Your task to perform on an android device: add a label to a message in the gmail app Image 0: 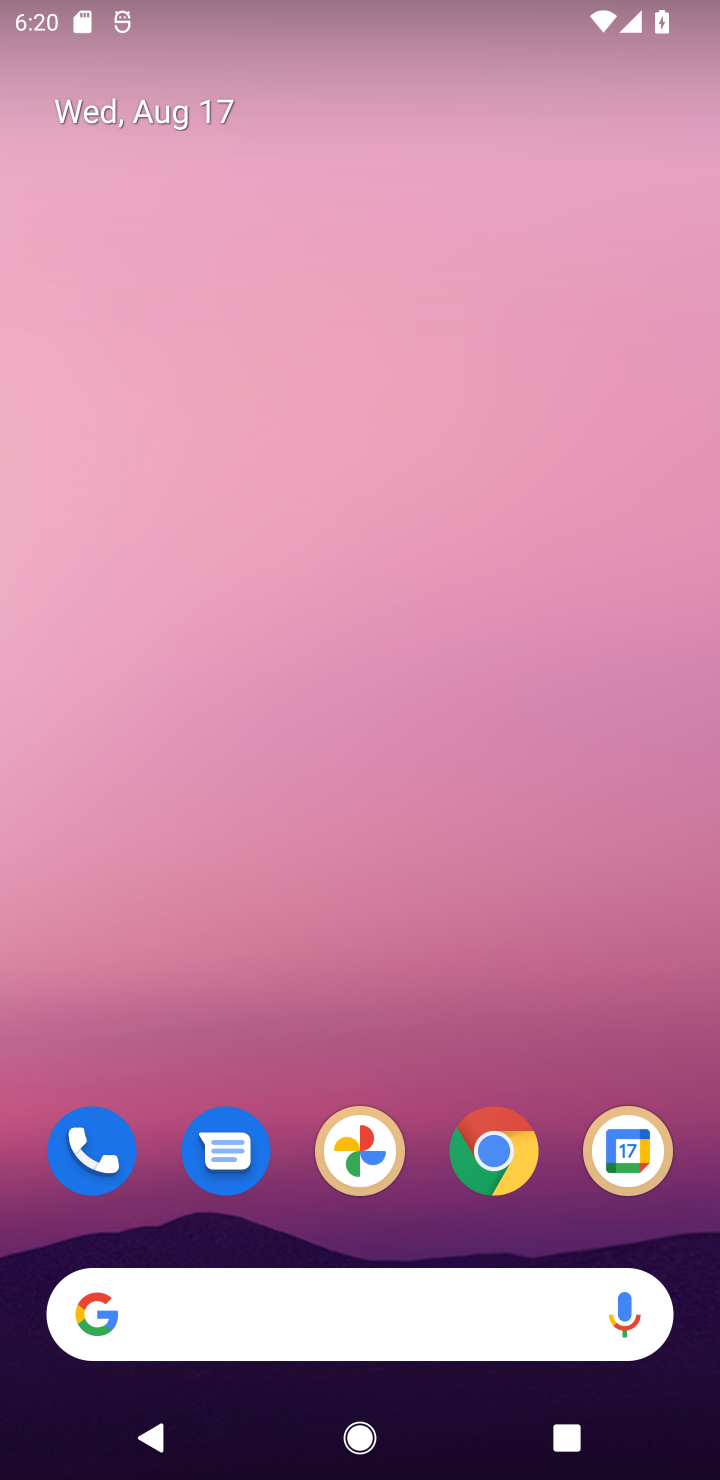
Step 0: drag from (452, 1227) to (360, 300)
Your task to perform on an android device: add a label to a message in the gmail app Image 1: 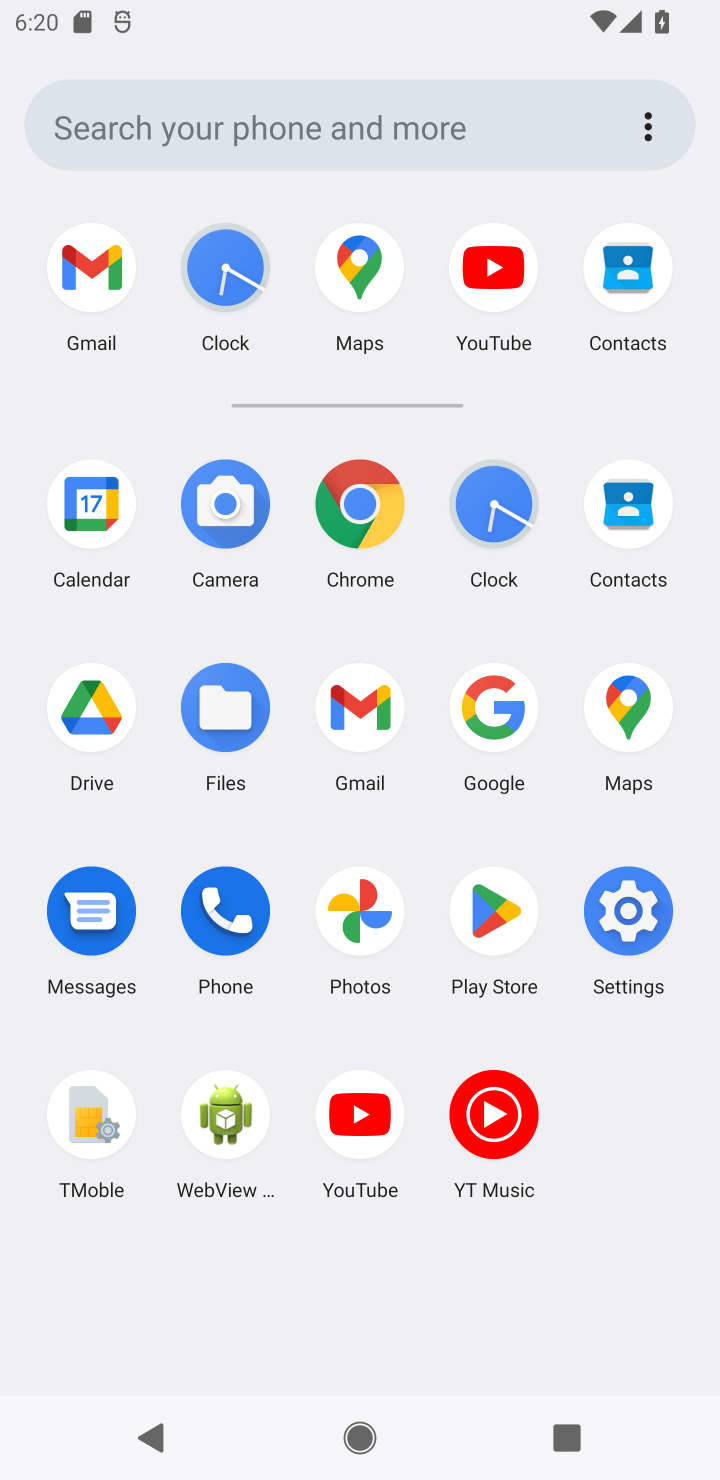
Step 1: click (357, 726)
Your task to perform on an android device: add a label to a message in the gmail app Image 2: 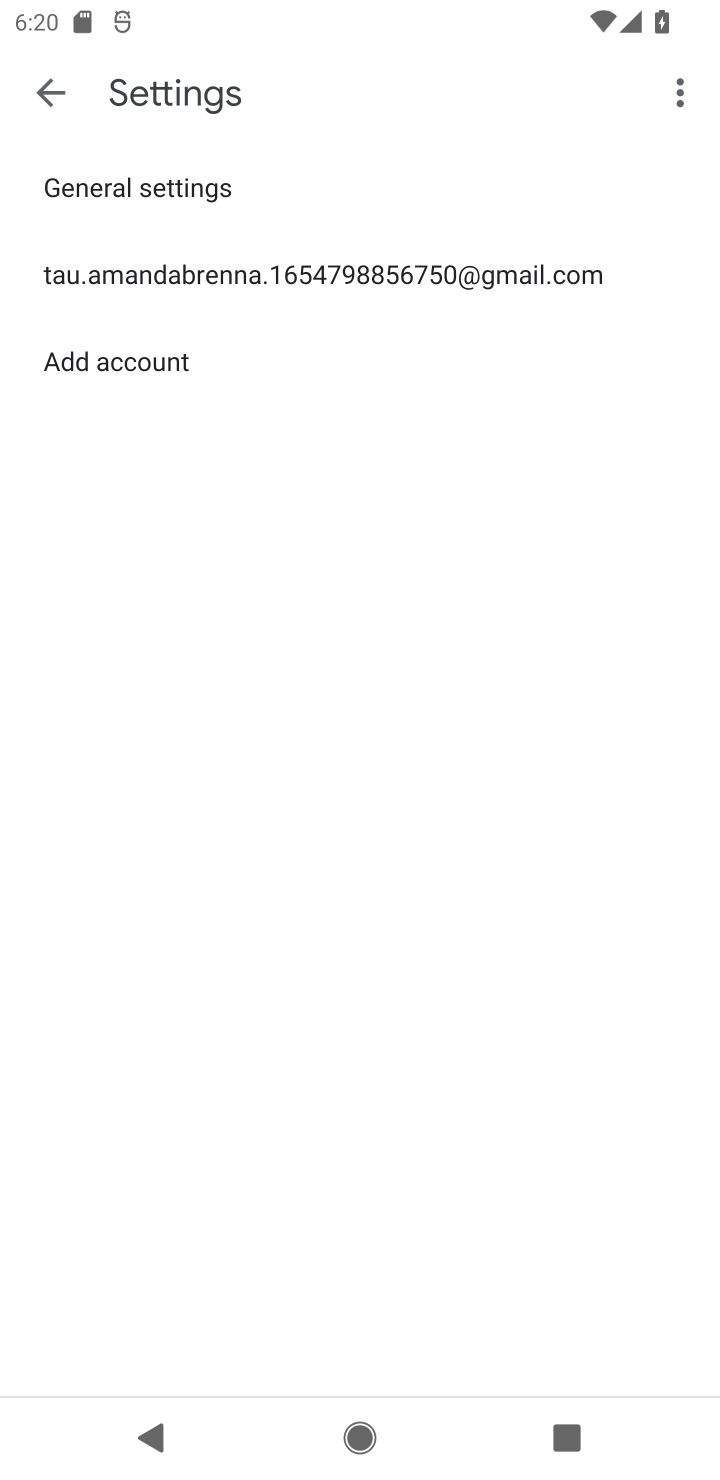
Step 2: task complete